Your task to perform on an android device: Go to CNN.com Image 0: 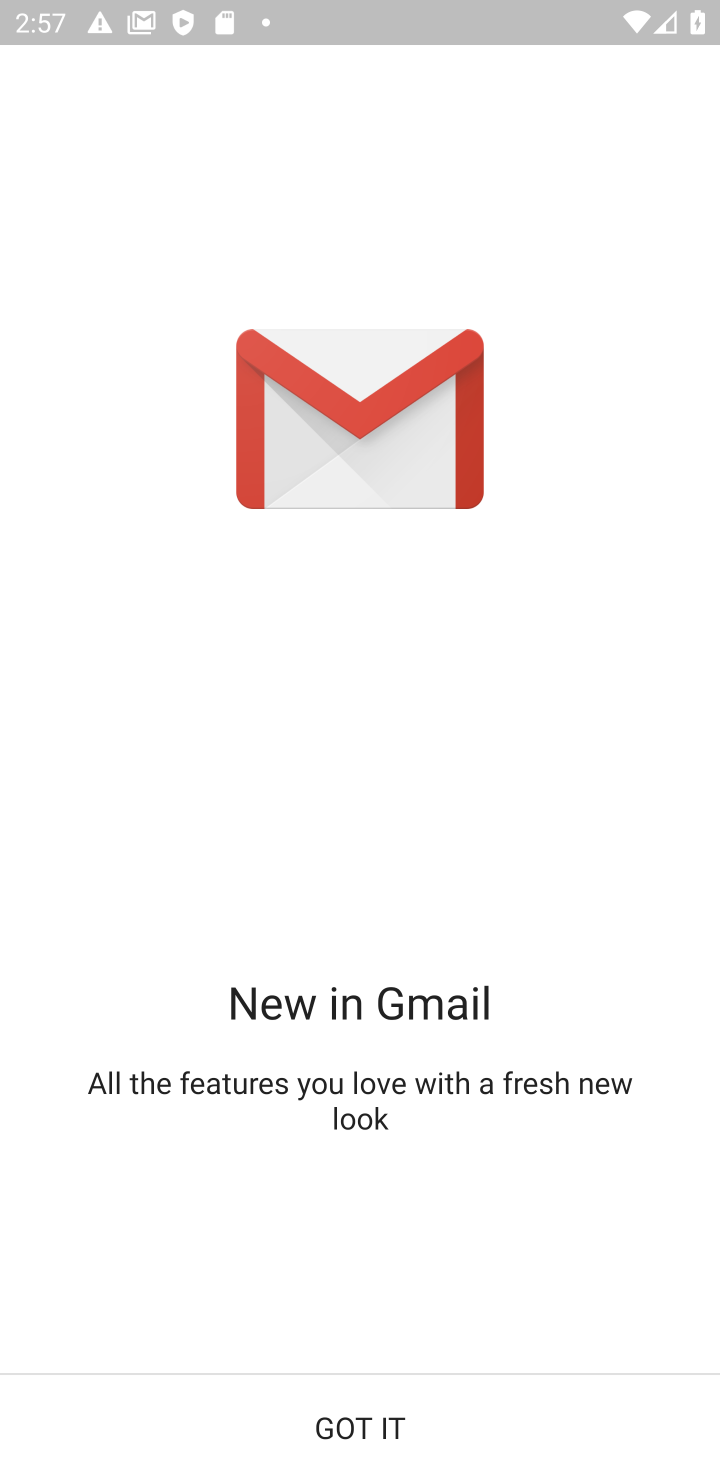
Step 0: press home button
Your task to perform on an android device: Go to CNN.com Image 1: 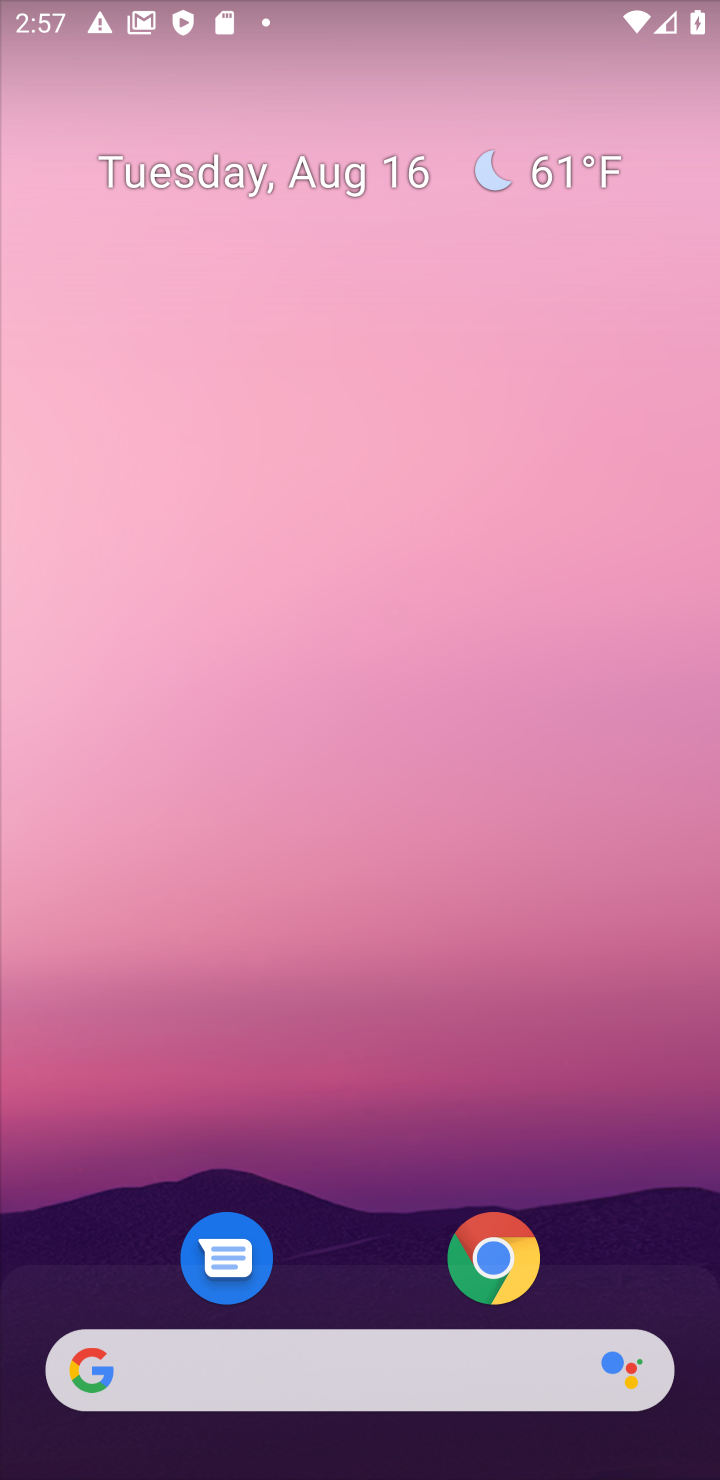
Step 1: click (414, 74)
Your task to perform on an android device: Go to CNN.com Image 2: 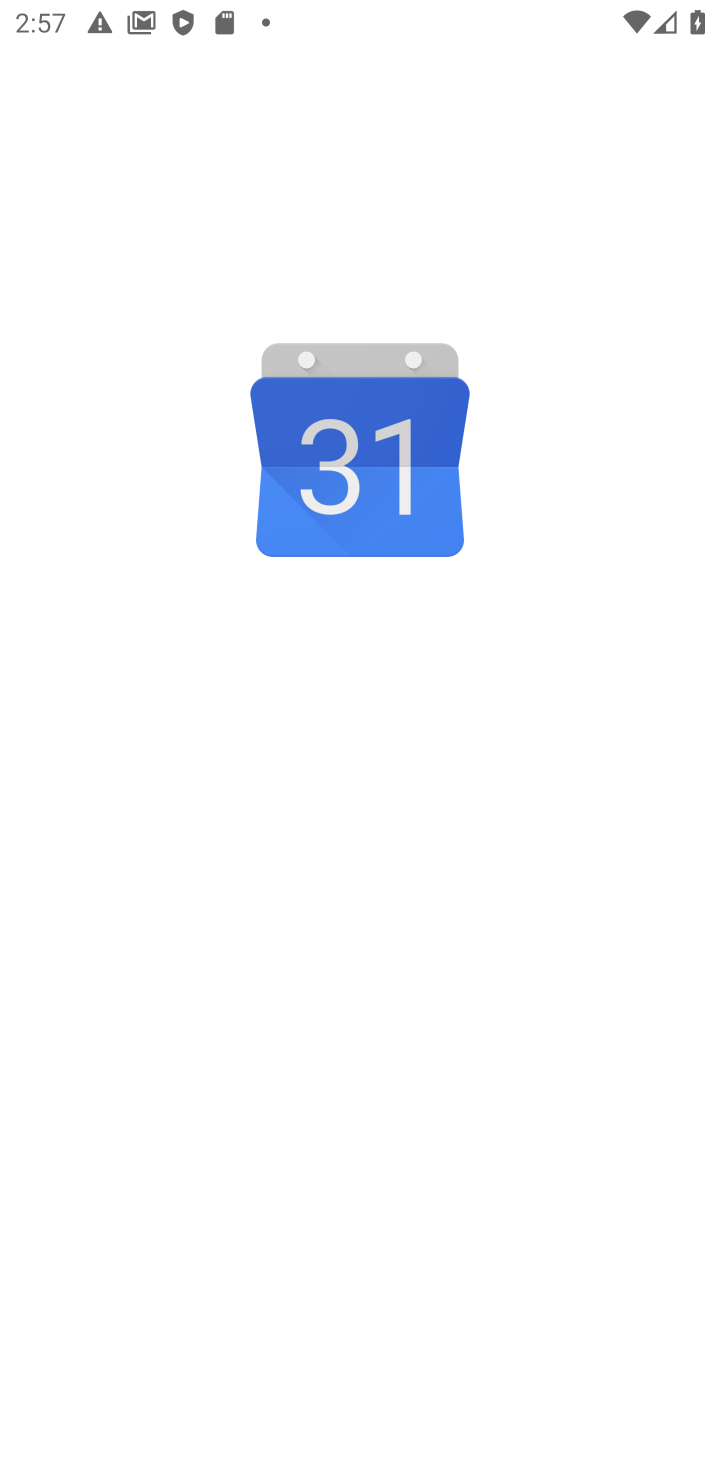
Step 2: drag from (641, 1247) to (298, 56)
Your task to perform on an android device: Go to CNN.com Image 3: 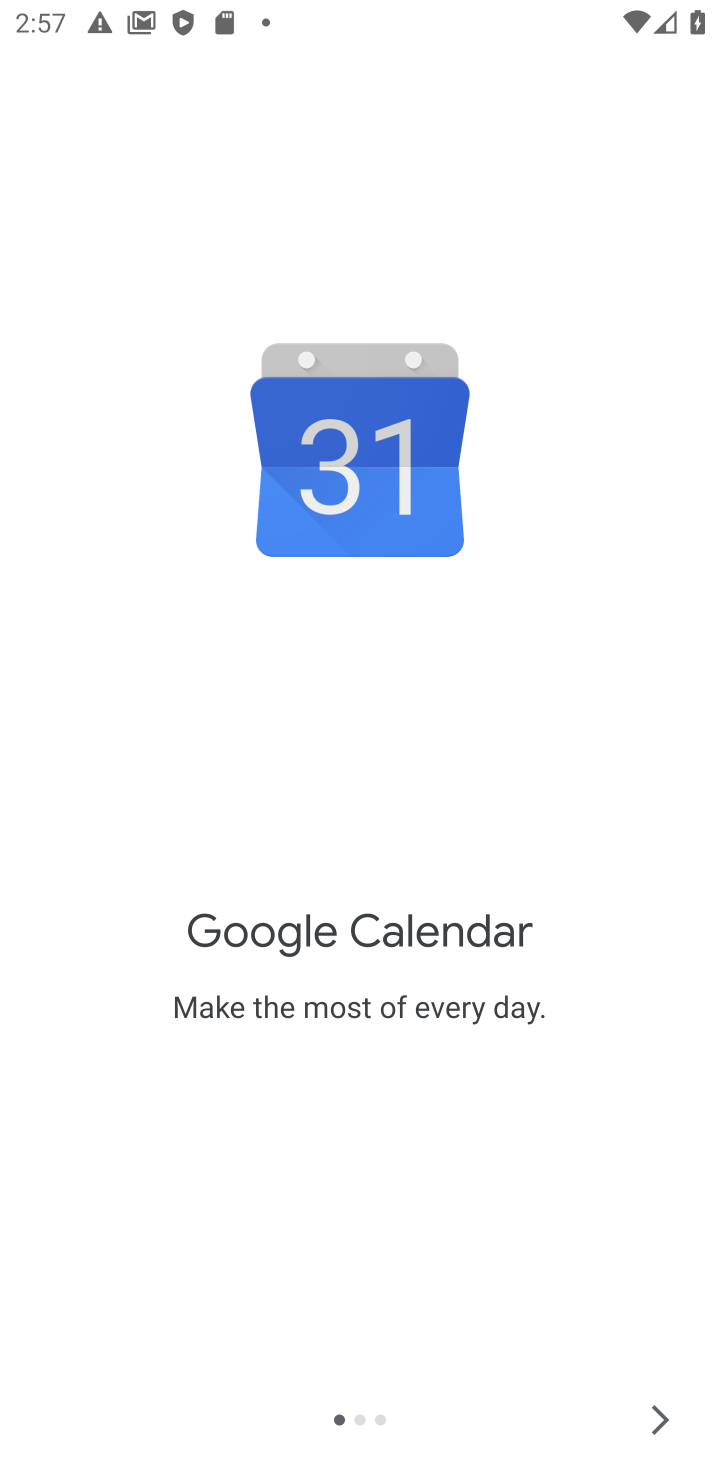
Step 3: press home button
Your task to perform on an android device: Go to CNN.com Image 4: 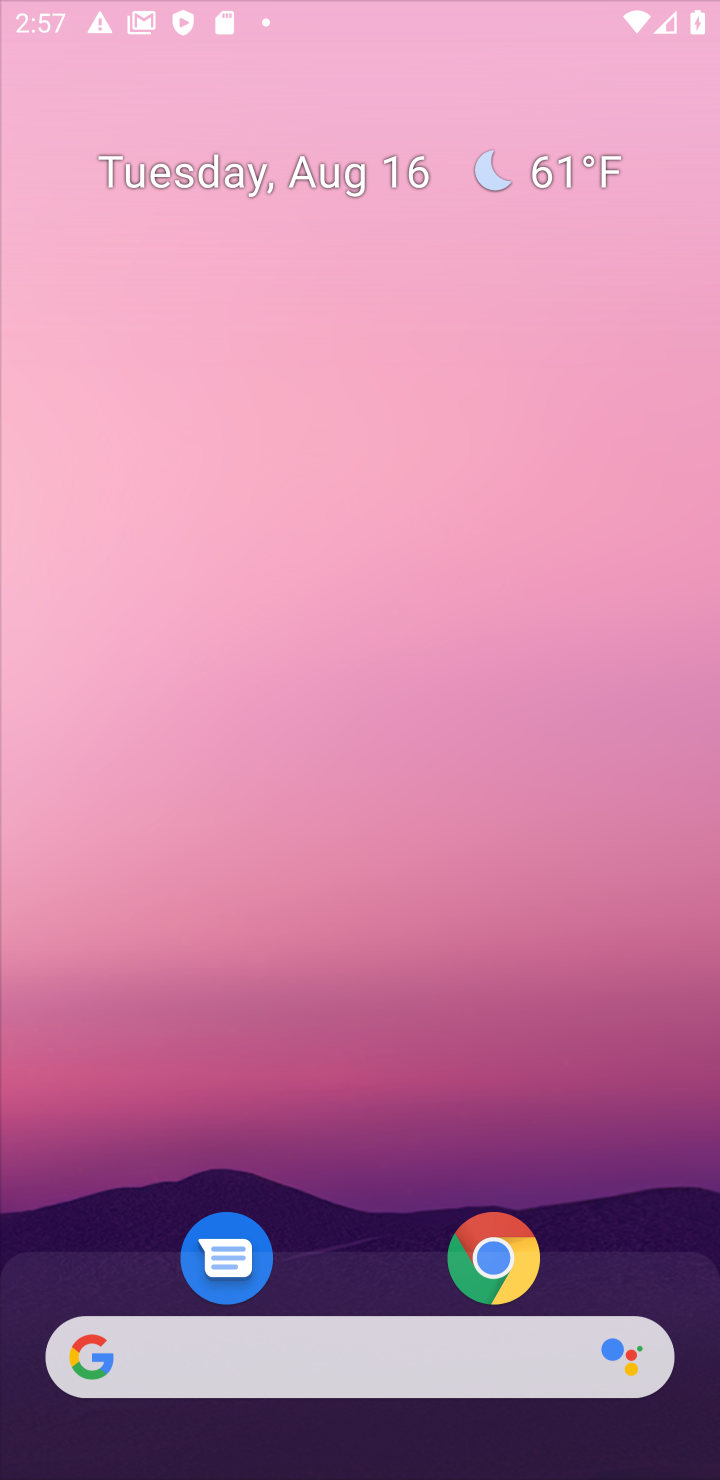
Step 4: drag from (675, 1260) to (255, 8)
Your task to perform on an android device: Go to CNN.com Image 5: 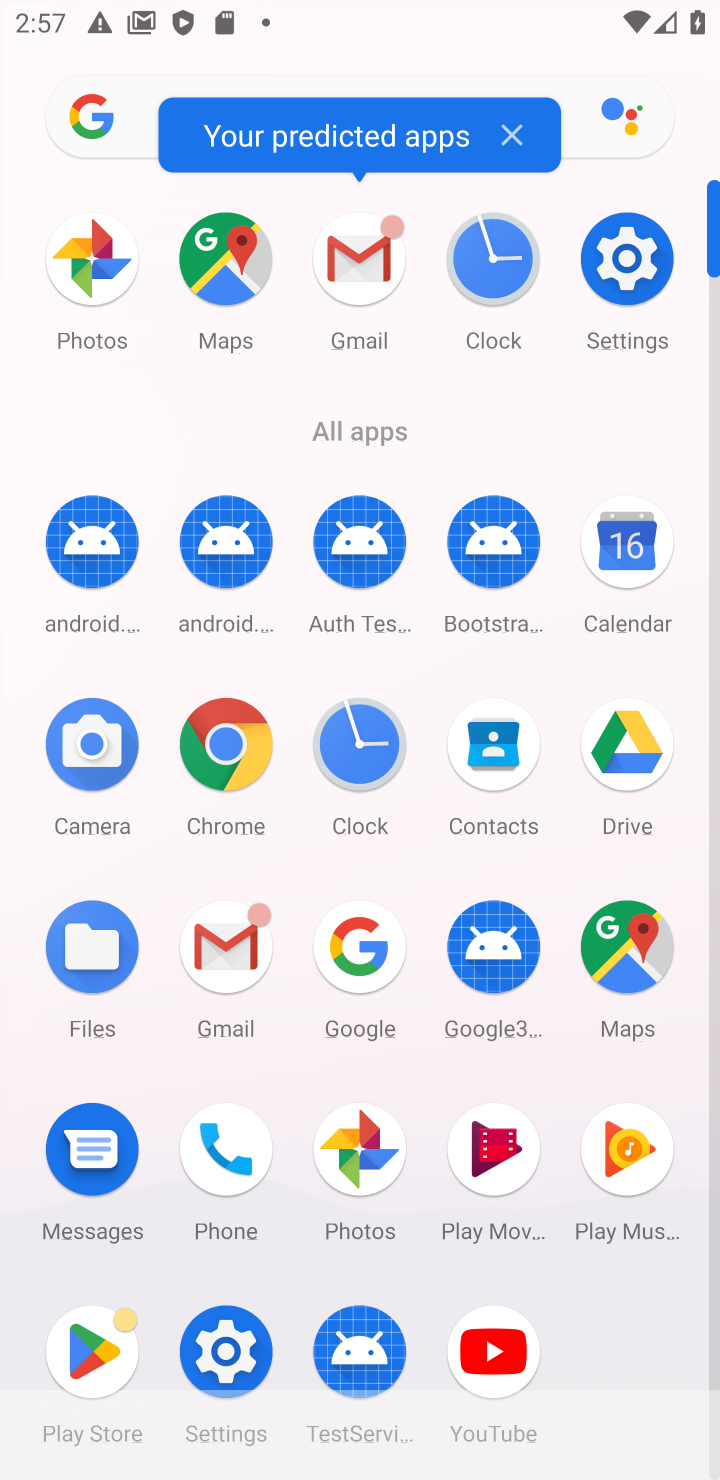
Step 5: click (380, 931)
Your task to perform on an android device: Go to CNN.com Image 6: 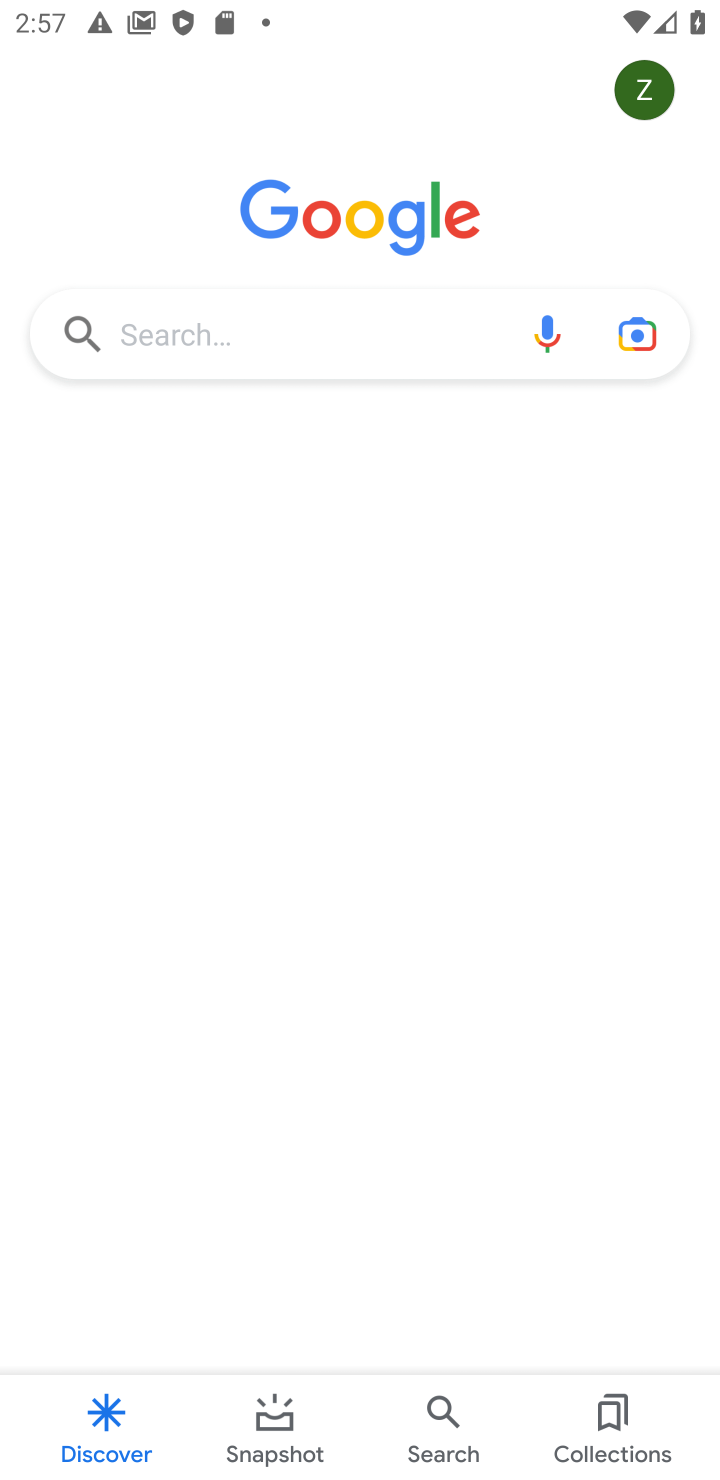
Step 6: click (276, 338)
Your task to perform on an android device: Go to CNN.com Image 7: 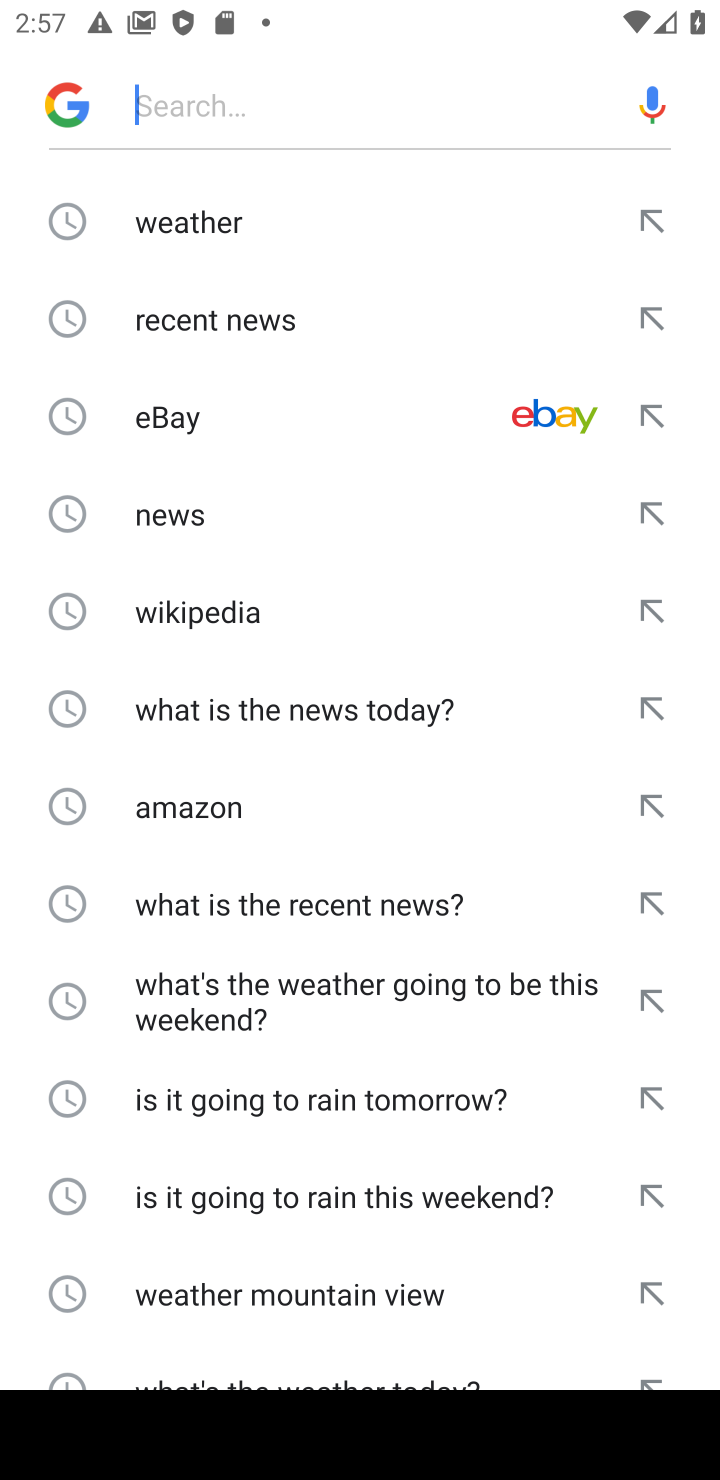
Step 7: type "CNN.com"
Your task to perform on an android device: Go to CNN.com Image 8: 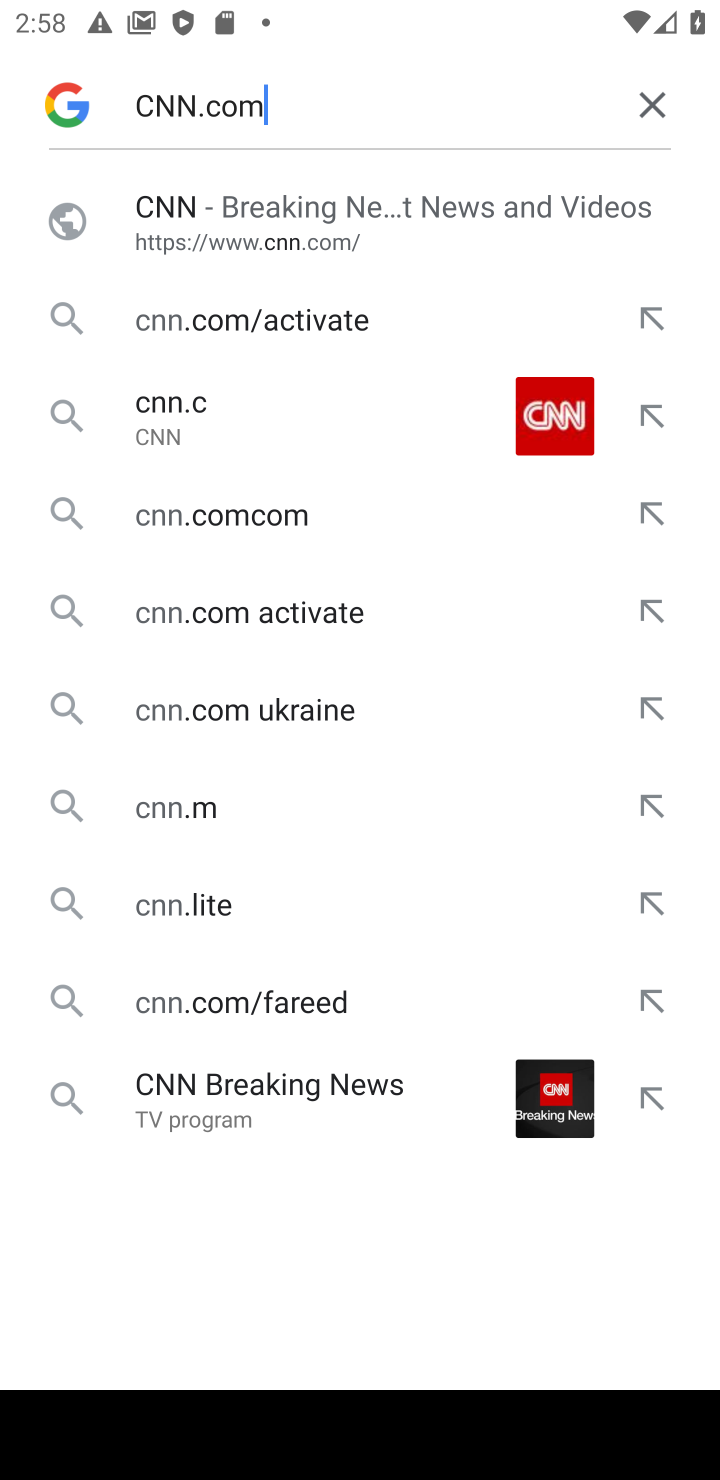
Step 8: task complete